Your task to perform on an android device: Open the gallery Image 0: 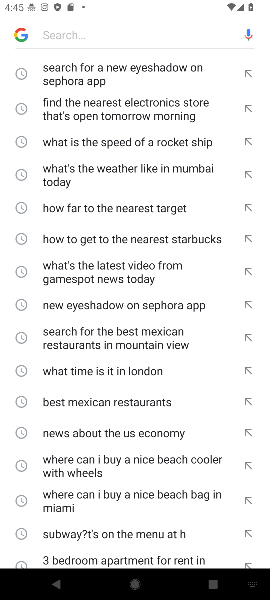
Step 0: press home button
Your task to perform on an android device: Open the gallery Image 1: 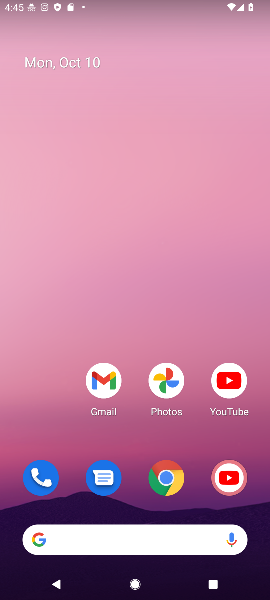
Step 1: click (173, 374)
Your task to perform on an android device: Open the gallery Image 2: 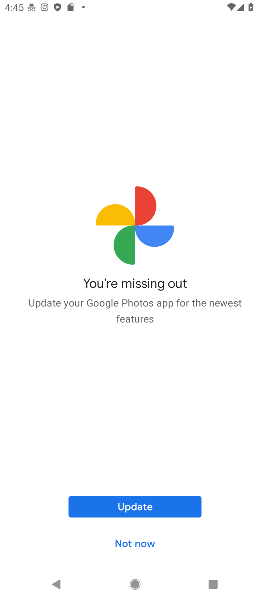
Step 2: click (122, 540)
Your task to perform on an android device: Open the gallery Image 3: 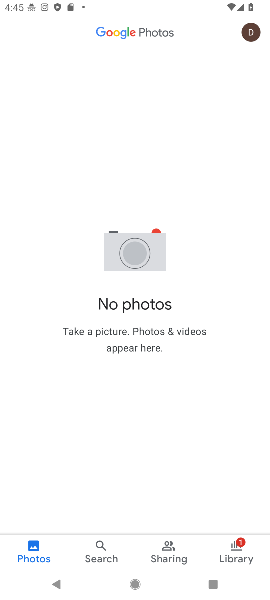
Step 3: task complete